Your task to perform on an android device: Open ESPN.com Image 0: 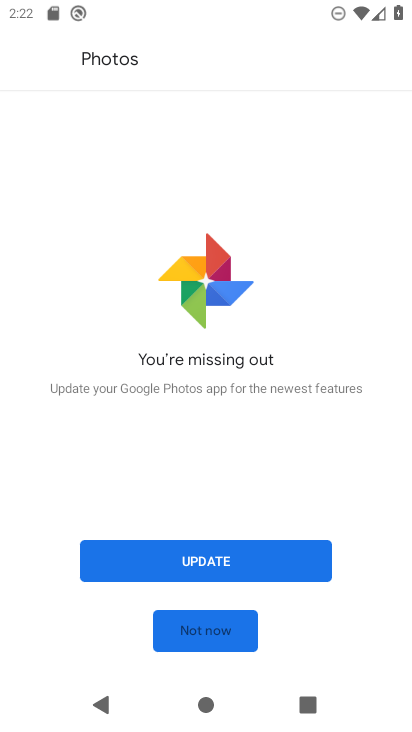
Step 0: click (219, 630)
Your task to perform on an android device: Open ESPN.com Image 1: 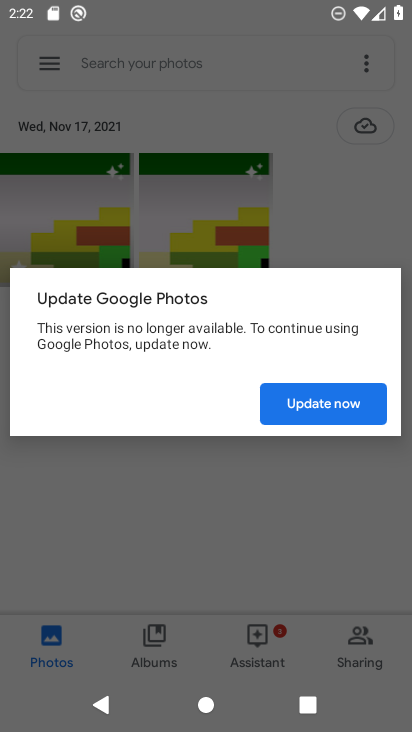
Step 1: click (305, 405)
Your task to perform on an android device: Open ESPN.com Image 2: 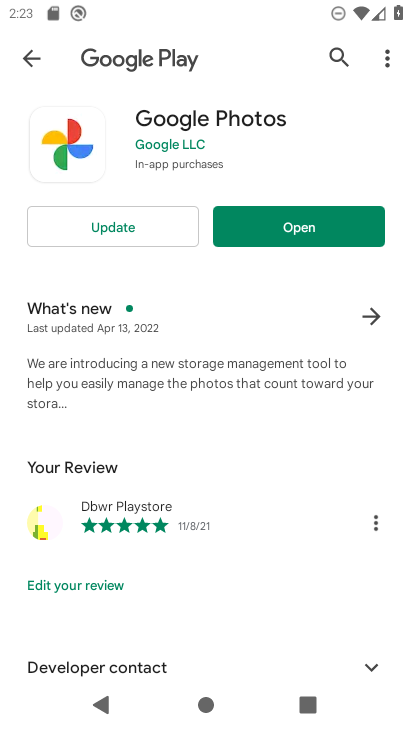
Step 2: click (22, 50)
Your task to perform on an android device: Open ESPN.com Image 3: 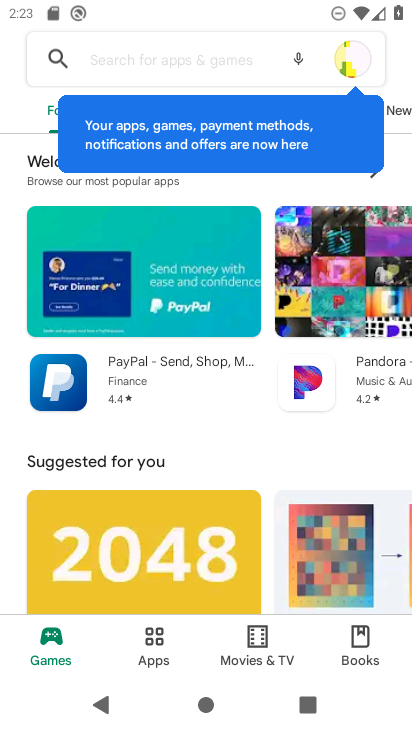
Step 3: press back button
Your task to perform on an android device: Open ESPN.com Image 4: 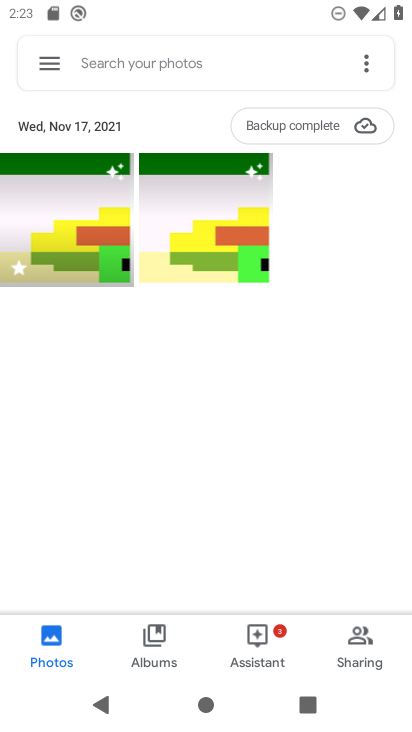
Step 4: press back button
Your task to perform on an android device: Open ESPN.com Image 5: 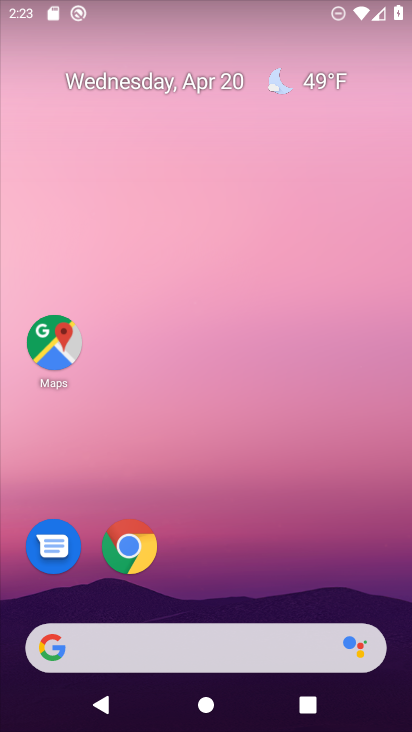
Step 5: click (122, 539)
Your task to perform on an android device: Open ESPN.com Image 6: 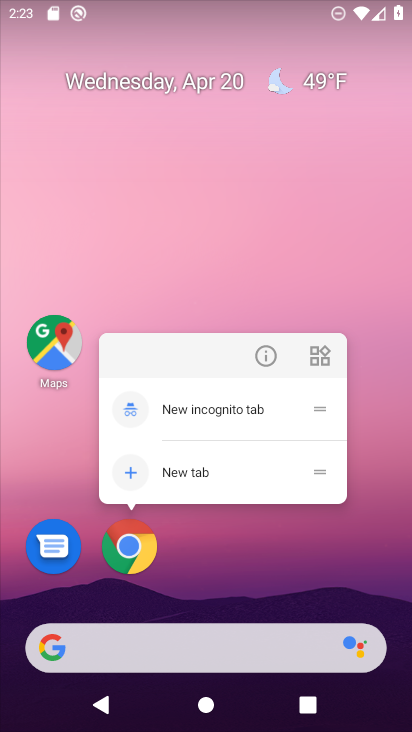
Step 6: click (135, 548)
Your task to perform on an android device: Open ESPN.com Image 7: 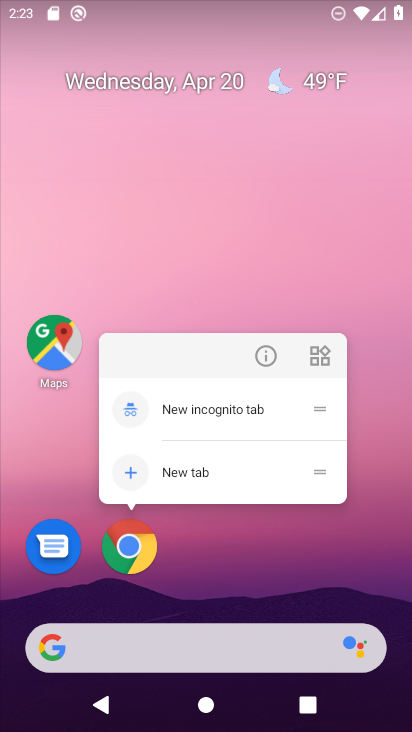
Step 7: click (128, 537)
Your task to perform on an android device: Open ESPN.com Image 8: 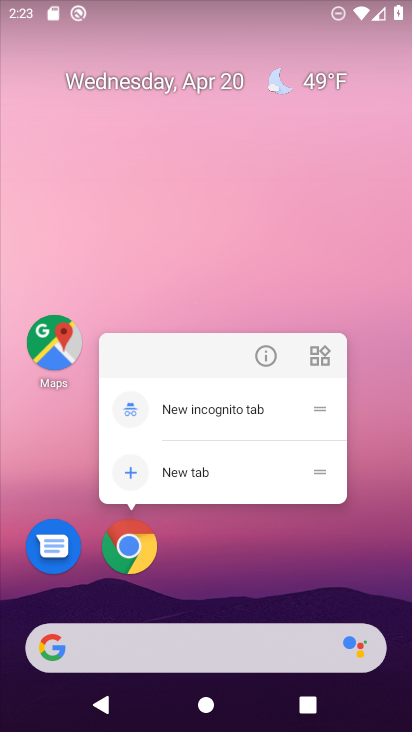
Step 8: click (128, 537)
Your task to perform on an android device: Open ESPN.com Image 9: 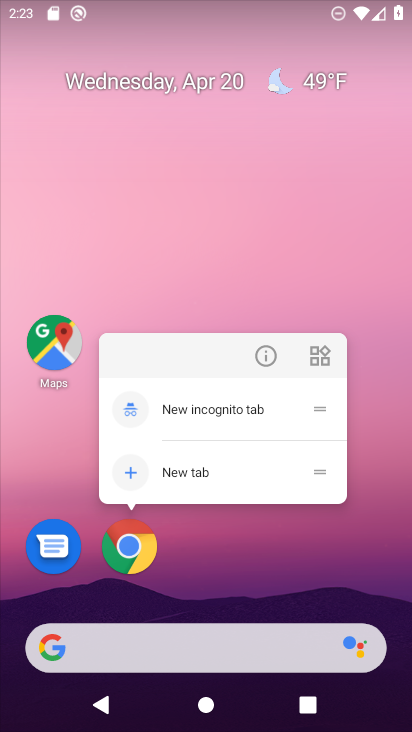
Step 9: click (131, 539)
Your task to perform on an android device: Open ESPN.com Image 10: 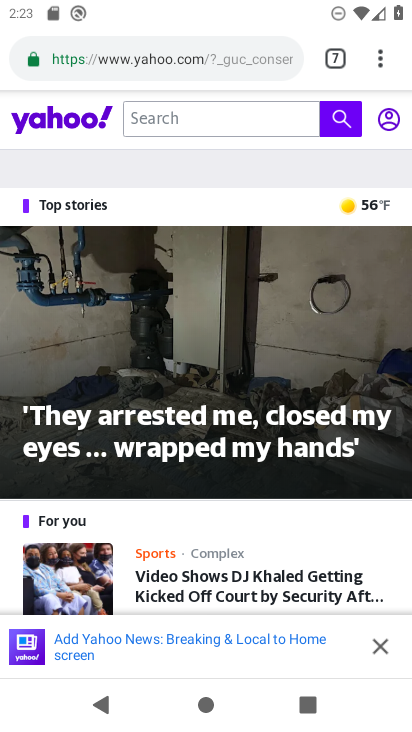
Step 10: click (330, 53)
Your task to perform on an android device: Open ESPN.com Image 11: 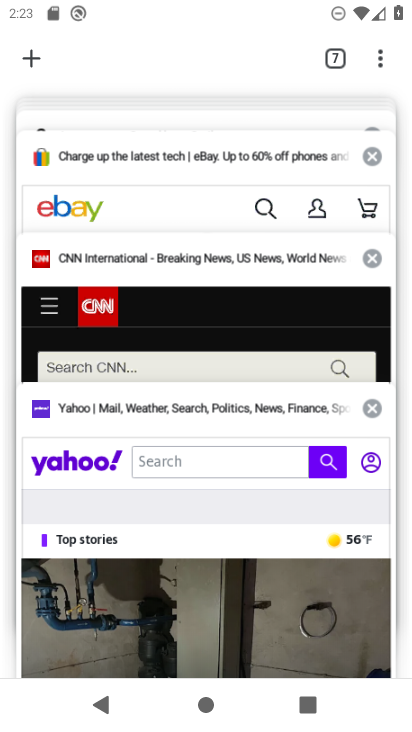
Step 11: drag from (164, 231) to (156, 576)
Your task to perform on an android device: Open ESPN.com Image 12: 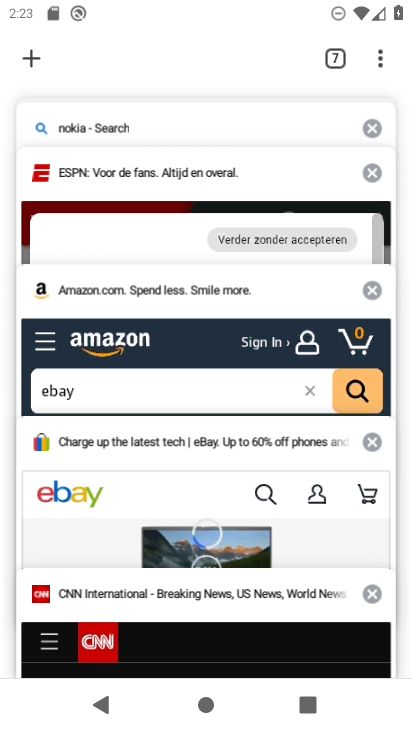
Step 12: click (121, 161)
Your task to perform on an android device: Open ESPN.com Image 13: 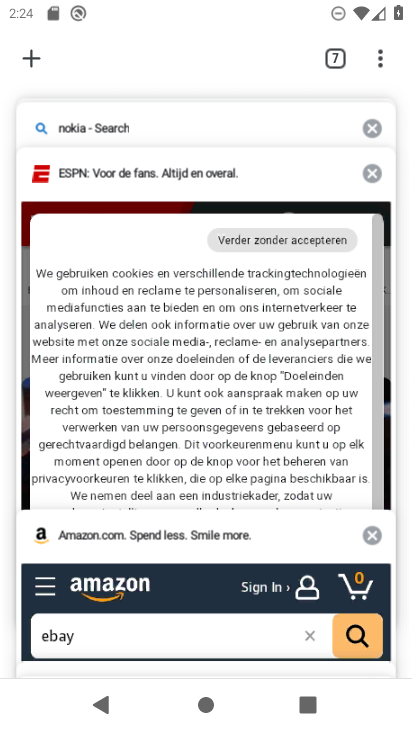
Step 13: click (142, 183)
Your task to perform on an android device: Open ESPN.com Image 14: 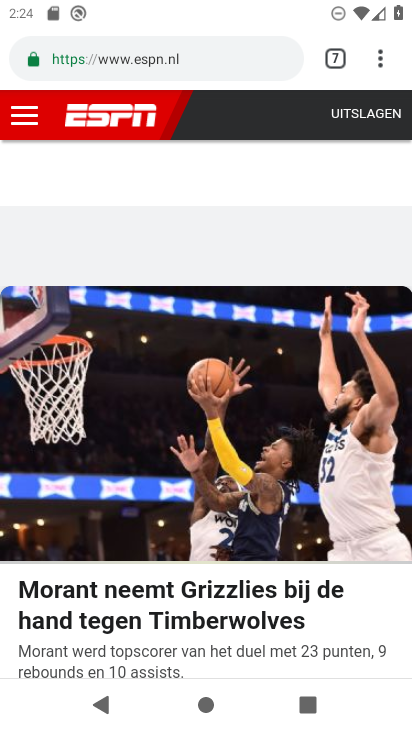
Step 14: task complete